Your task to perform on an android device: Search for sushi restaurants on Maps Image 0: 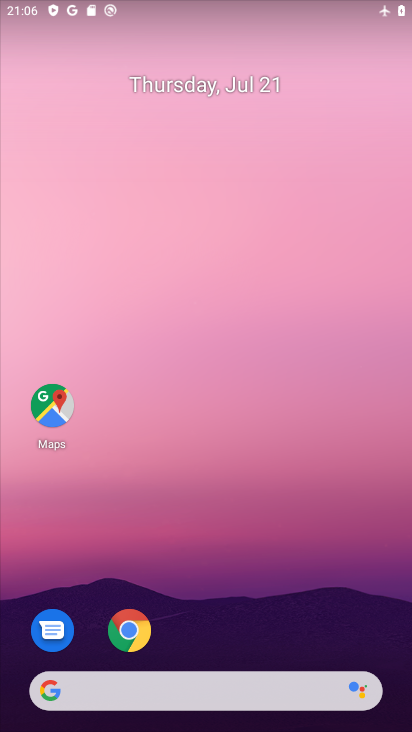
Step 0: drag from (285, 525) to (220, 178)
Your task to perform on an android device: Search for sushi restaurants on Maps Image 1: 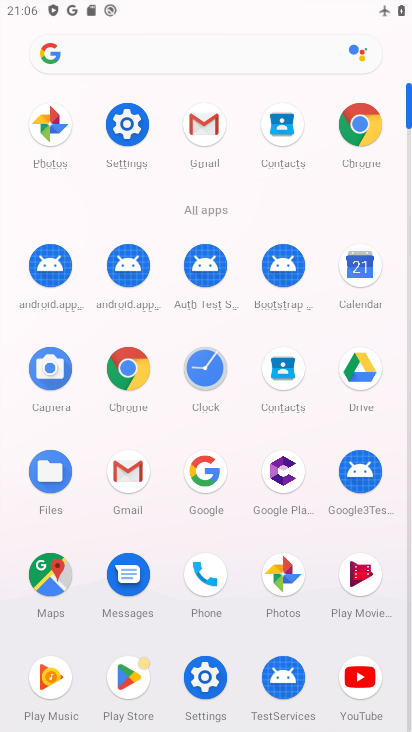
Step 1: click (43, 576)
Your task to perform on an android device: Search for sushi restaurants on Maps Image 2: 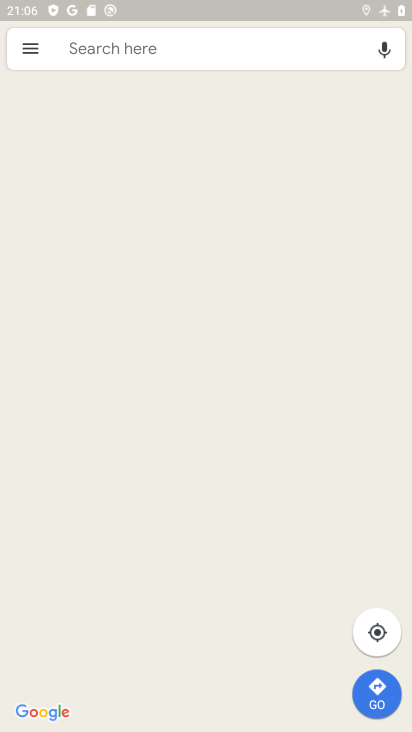
Step 2: click (269, 41)
Your task to perform on an android device: Search for sushi restaurants on Maps Image 3: 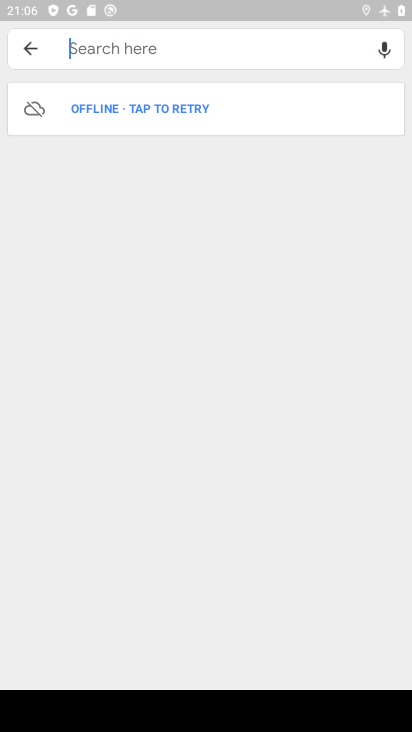
Step 3: type "sushi restaurants"
Your task to perform on an android device: Search for sushi restaurants on Maps Image 4: 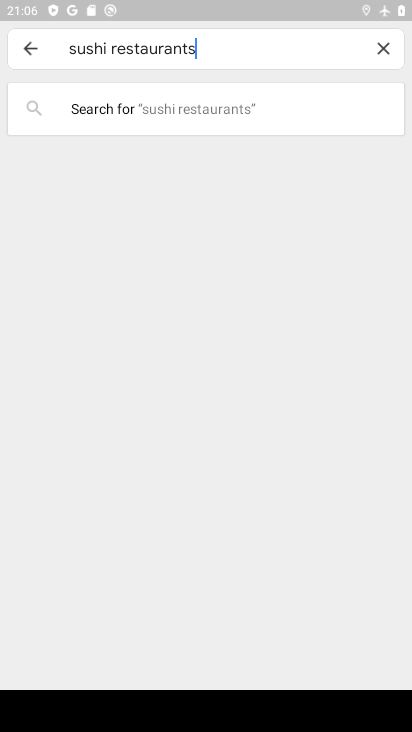
Step 4: click (212, 113)
Your task to perform on an android device: Search for sushi restaurants on Maps Image 5: 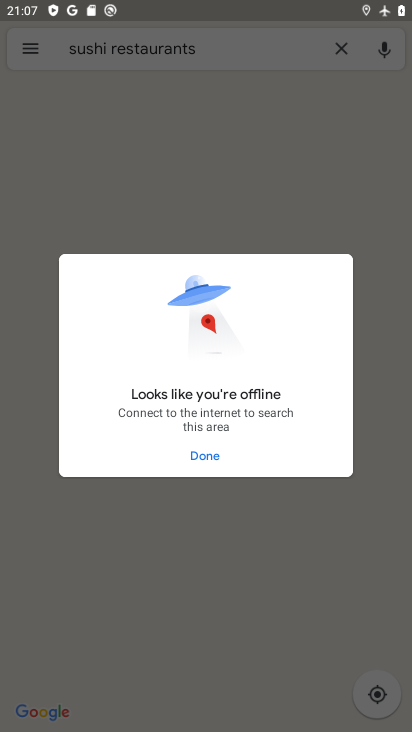
Step 5: task complete